Your task to perform on an android device: Open the calendar and show me this week's events? Image 0: 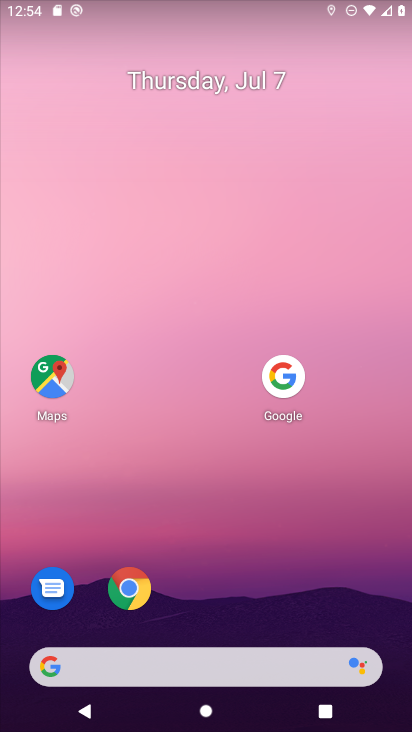
Step 0: drag from (154, 654) to (376, 79)
Your task to perform on an android device: Open the calendar and show me this week's events? Image 1: 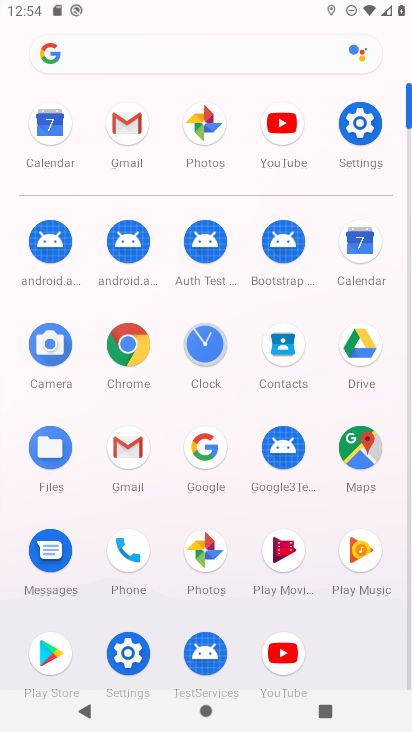
Step 1: click (367, 234)
Your task to perform on an android device: Open the calendar and show me this week's events? Image 2: 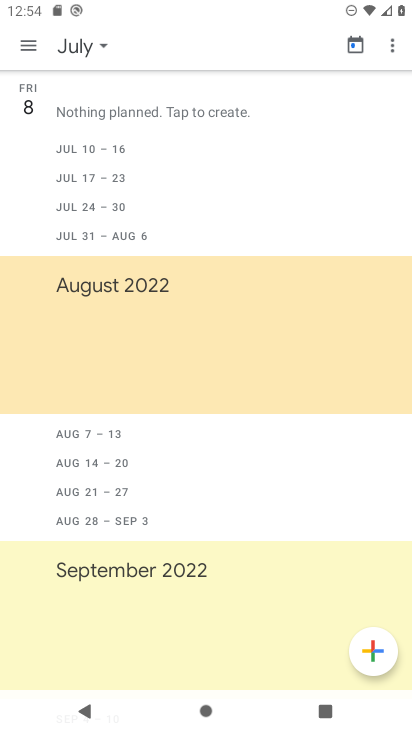
Step 2: click (90, 47)
Your task to perform on an android device: Open the calendar and show me this week's events? Image 3: 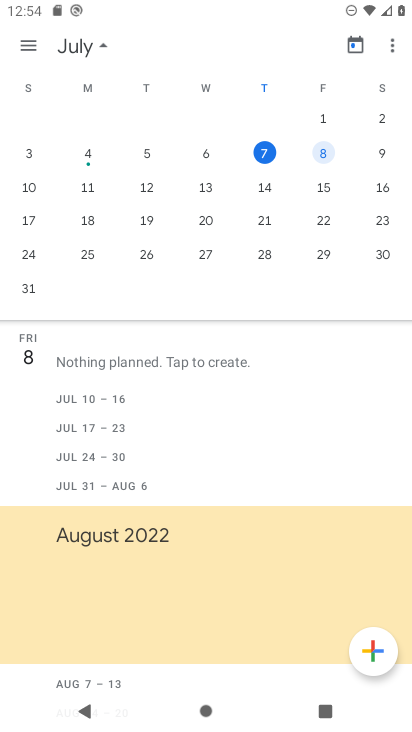
Step 3: click (273, 150)
Your task to perform on an android device: Open the calendar and show me this week's events? Image 4: 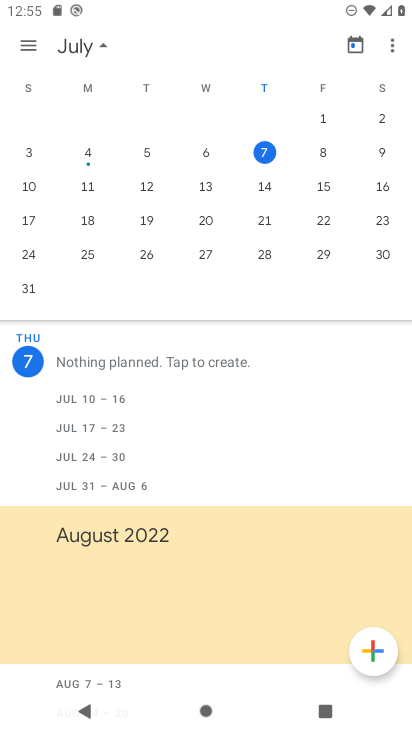
Step 4: click (25, 52)
Your task to perform on an android device: Open the calendar and show me this week's events? Image 5: 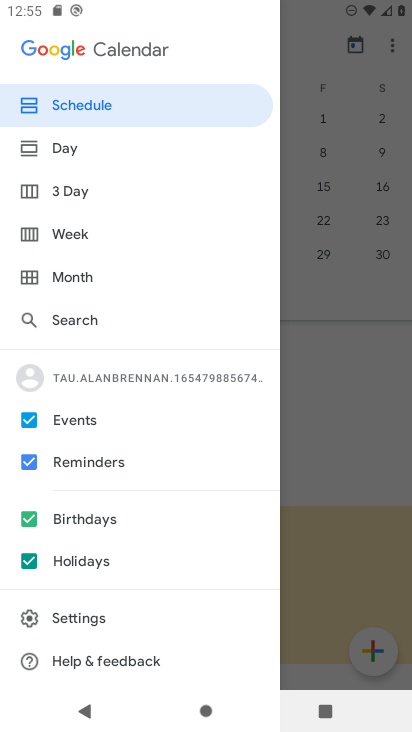
Step 5: click (80, 238)
Your task to perform on an android device: Open the calendar and show me this week's events? Image 6: 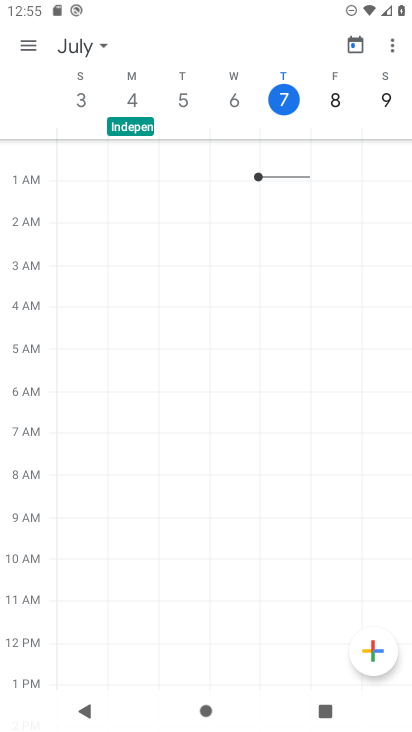
Step 6: click (35, 49)
Your task to perform on an android device: Open the calendar and show me this week's events? Image 7: 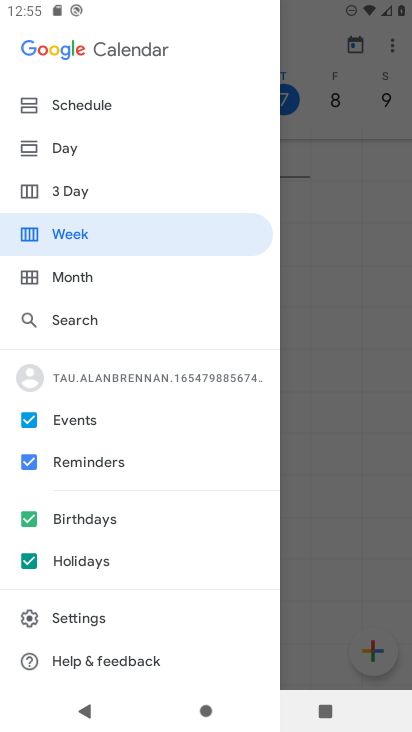
Step 7: click (79, 99)
Your task to perform on an android device: Open the calendar and show me this week's events? Image 8: 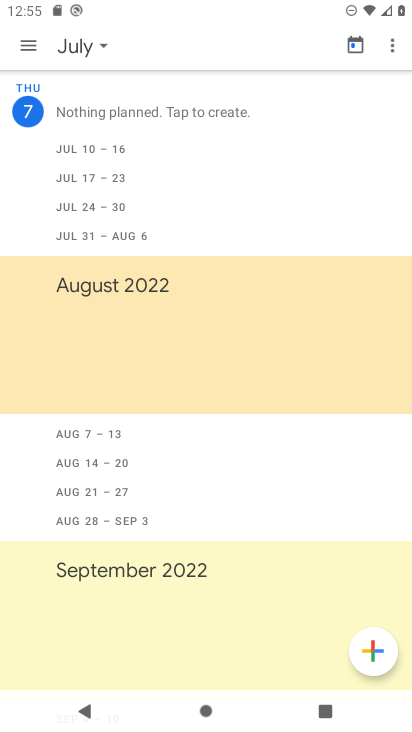
Step 8: task complete